Your task to perform on an android device: change notifications settings Image 0: 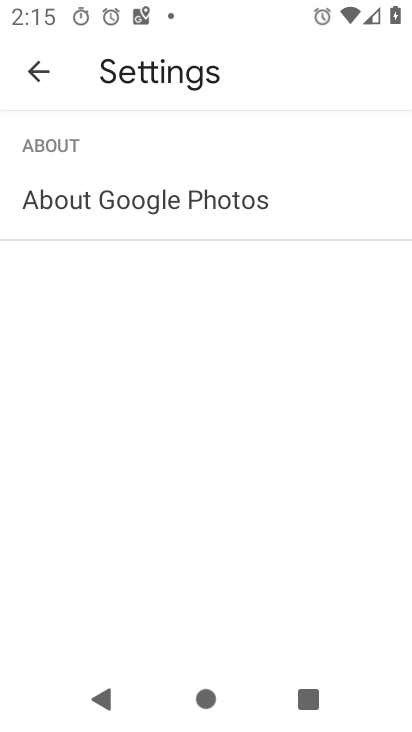
Step 0: press home button
Your task to perform on an android device: change notifications settings Image 1: 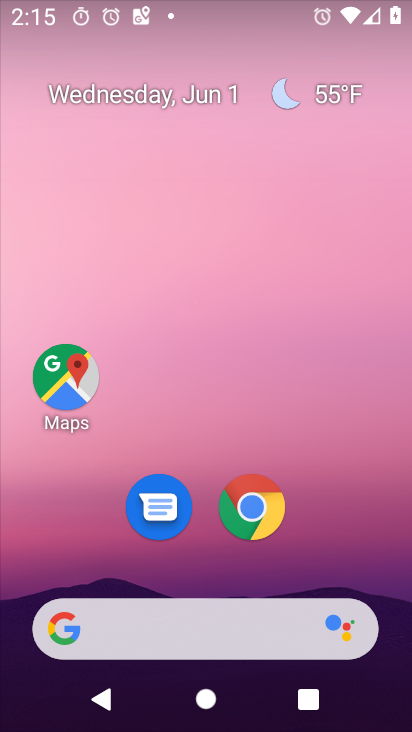
Step 1: drag from (337, 563) to (323, 2)
Your task to perform on an android device: change notifications settings Image 2: 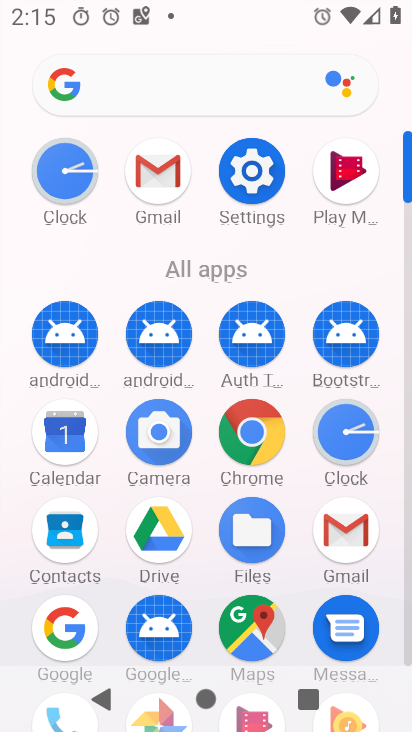
Step 2: click (250, 174)
Your task to perform on an android device: change notifications settings Image 3: 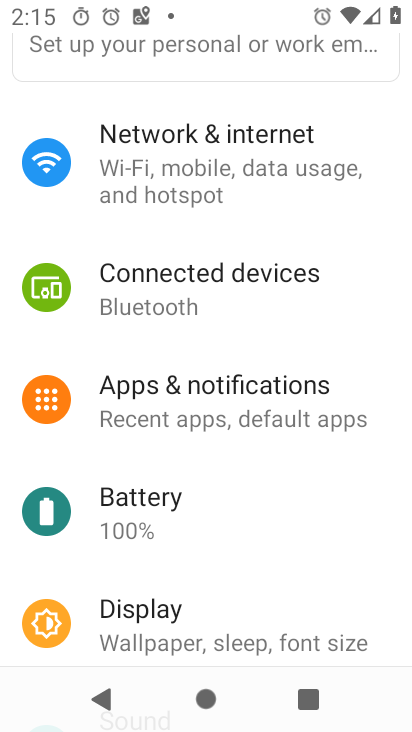
Step 3: click (205, 418)
Your task to perform on an android device: change notifications settings Image 4: 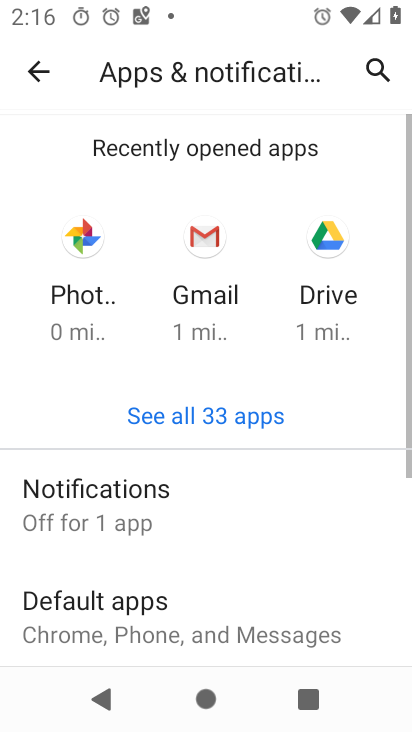
Step 4: click (66, 511)
Your task to perform on an android device: change notifications settings Image 5: 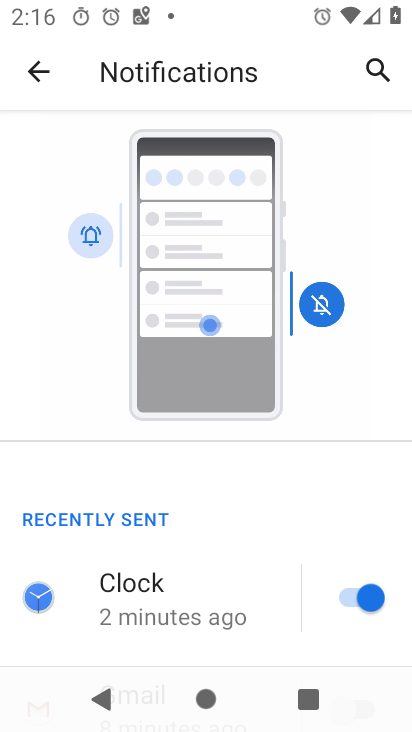
Step 5: drag from (239, 502) to (226, 17)
Your task to perform on an android device: change notifications settings Image 6: 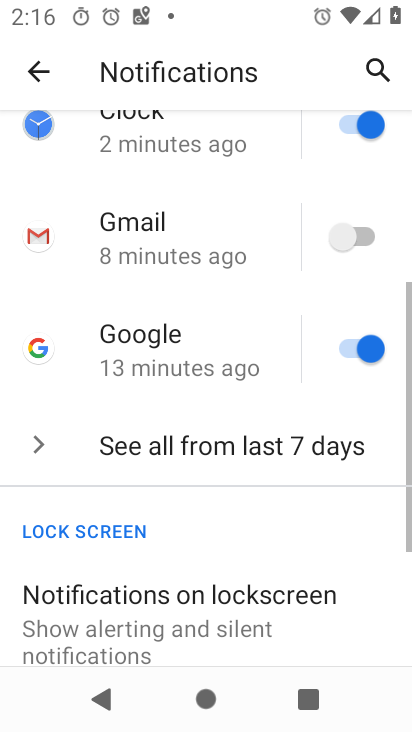
Step 6: drag from (187, 488) to (178, 70)
Your task to perform on an android device: change notifications settings Image 7: 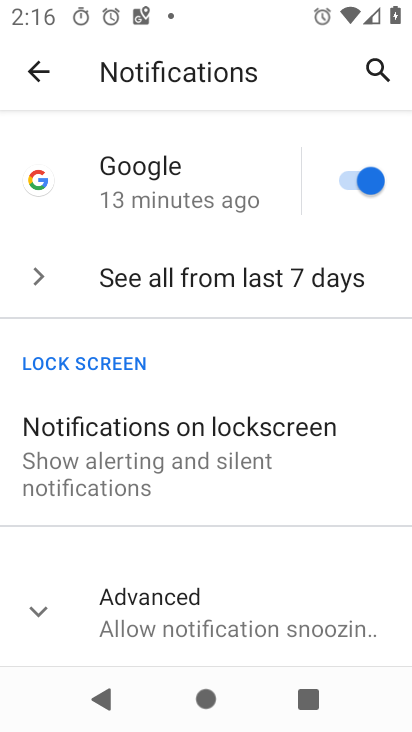
Step 7: click (183, 276)
Your task to perform on an android device: change notifications settings Image 8: 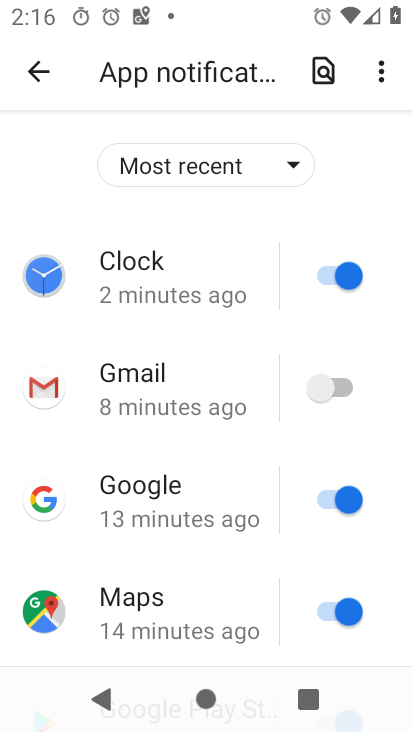
Step 8: click (291, 171)
Your task to perform on an android device: change notifications settings Image 9: 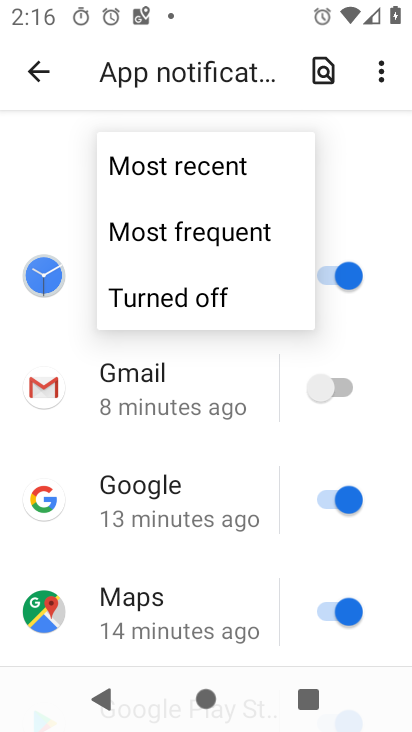
Step 9: click (174, 236)
Your task to perform on an android device: change notifications settings Image 10: 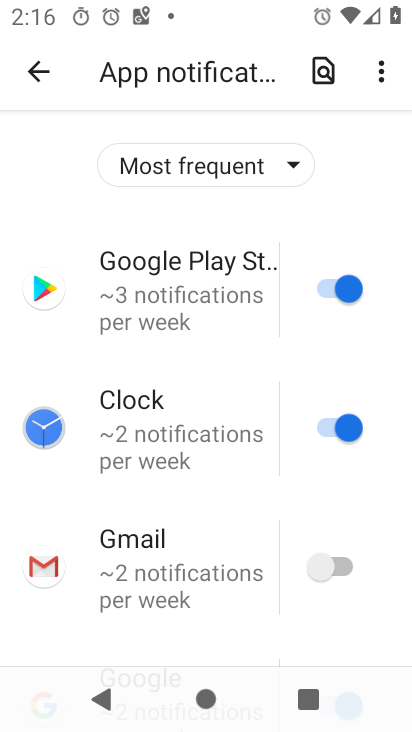
Step 10: task complete